Your task to perform on an android device: check data usage Image 0: 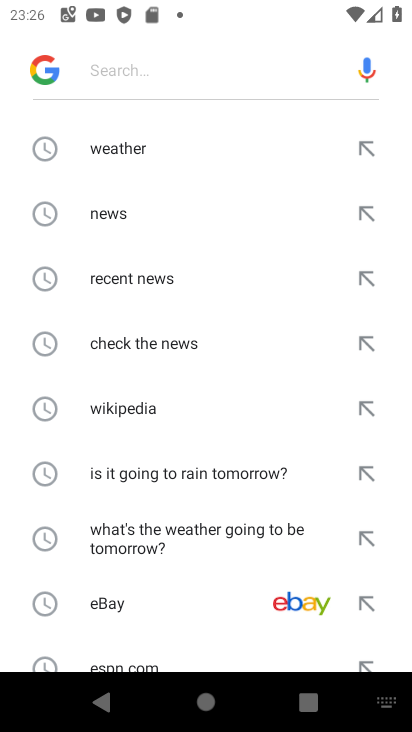
Step 0: press home button
Your task to perform on an android device: check data usage Image 1: 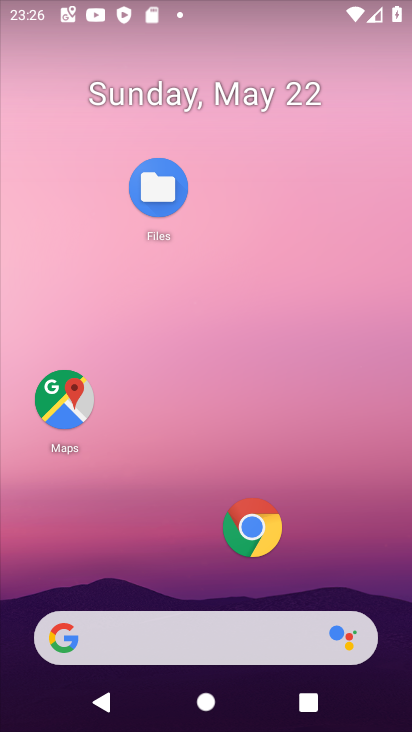
Step 1: drag from (172, 522) to (126, 143)
Your task to perform on an android device: check data usage Image 2: 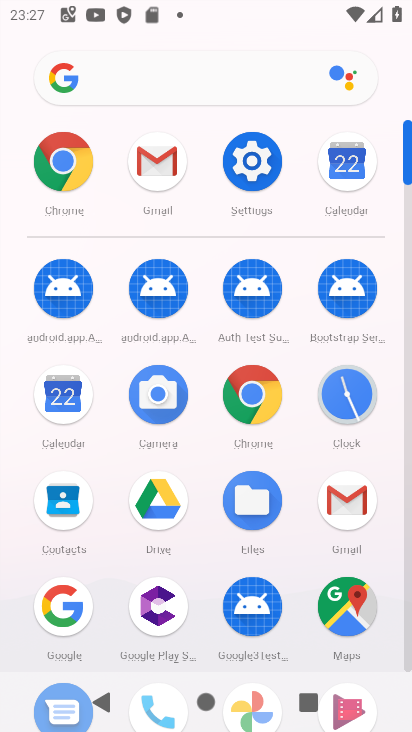
Step 2: click (247, 162)
Your task to perform on an android device: check data usage Image 3: 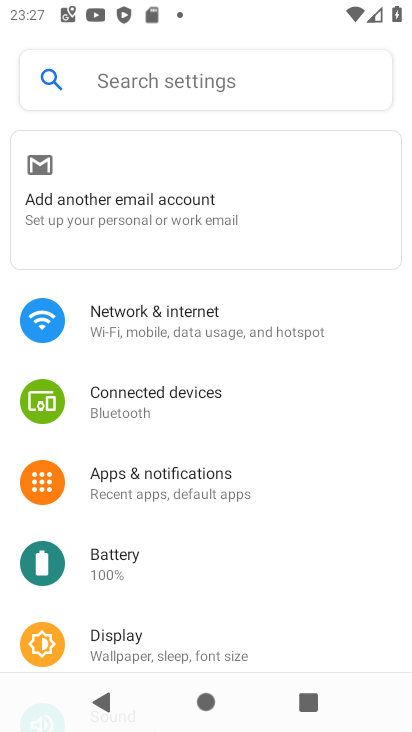
Step 3: click (168, 304)
Your task to perform on an android device: check data usage Image 4: 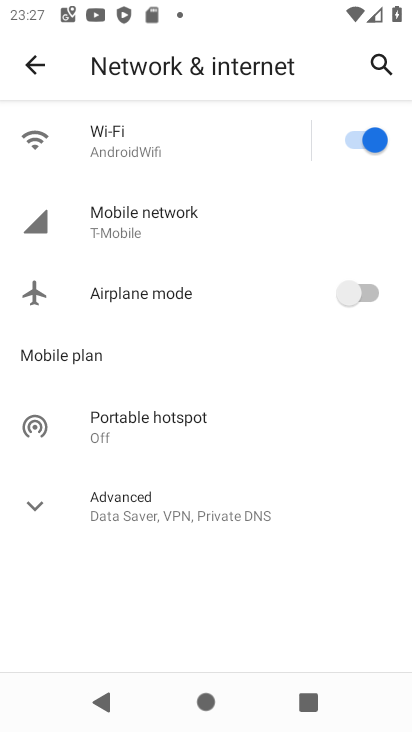
Step 4: click (142, 215)
Your task to perform on an android device: check data usage Image 5: 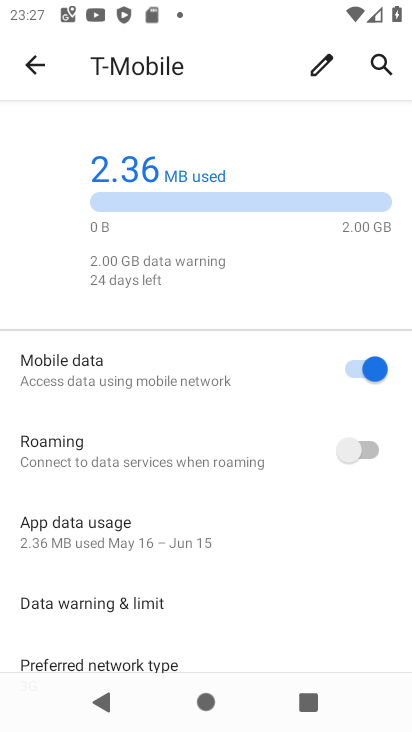
Step 5: task complete